Your task to perform on an android device: open wifi settings Image 0: 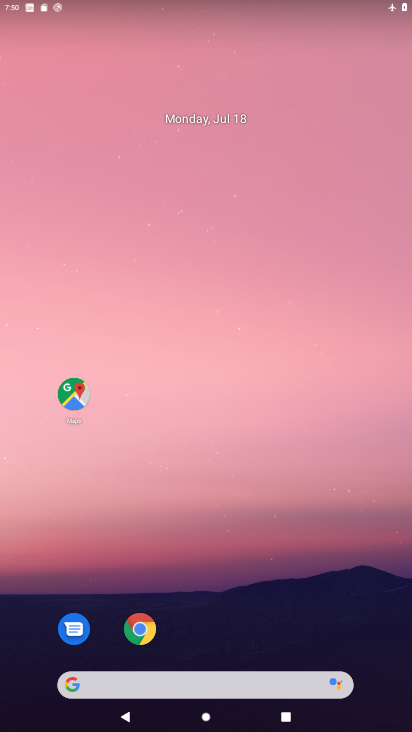
Step 0: drag from (121, 689) to (325, 2)
Your task to perform on an android device: open wifi settings Image 1: 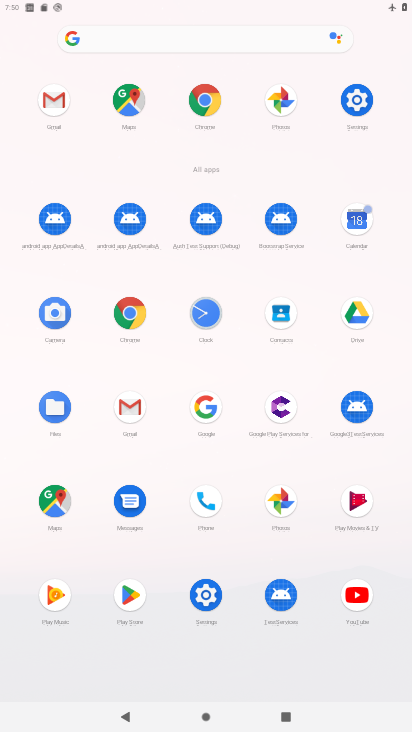
Step 1: click (360, 113)
Your task to perform on an android device: open wifi settings Image 2: 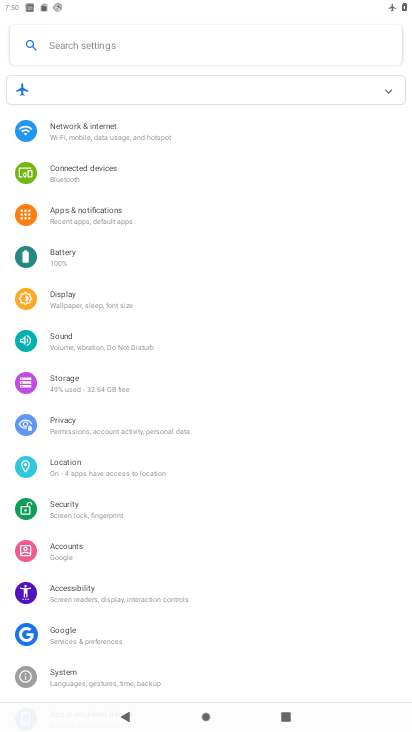
Step 2: click (209, 129)
Your task to perform on an android device: open wifi settings Image 3: 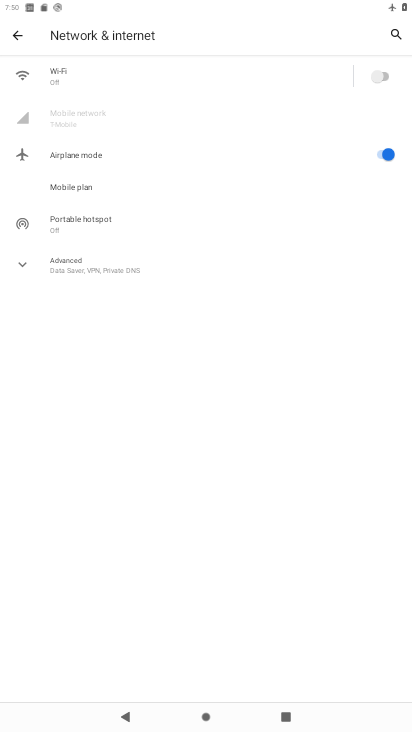
Step 3: click (144, 72)
Your task to perform on an android device: open wifi settings Image 4: 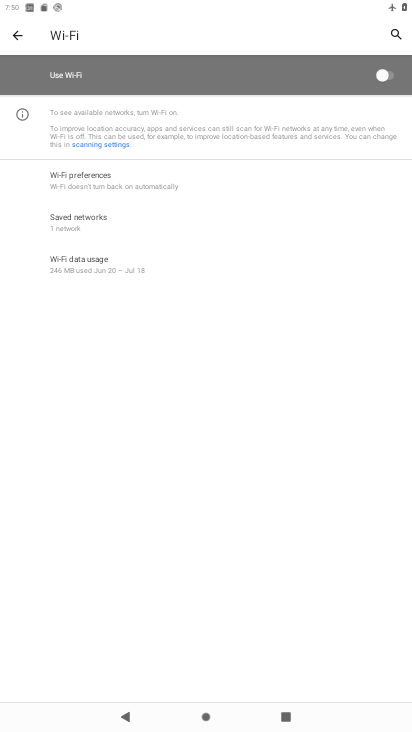
Step 4: task complete